Your task to perform on an android device: add a contact in the contacts app Image 0: 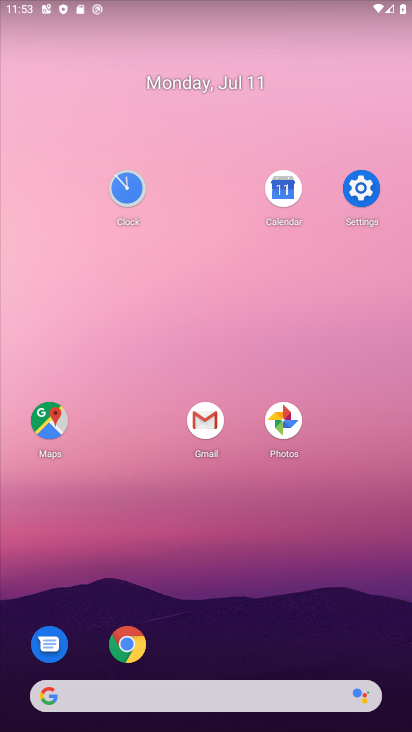
Step 0: drag from (311, 590) to (234, 185)
Your task to perform on an android device: add a contact in the contacts app Image 1: 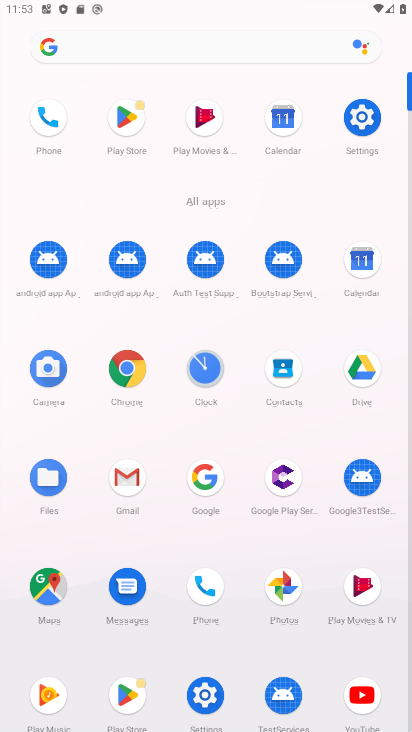
Step 1: click (282, 377)
Your task to perform on an android device: add a contact in the contacts app Image 2: 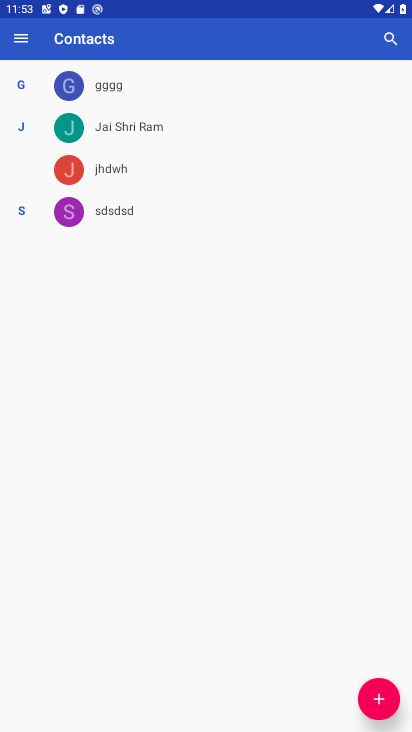
Step 2: click (375, 711)
Your task to perform on an android device: add a contact in the contacts app Image 3: 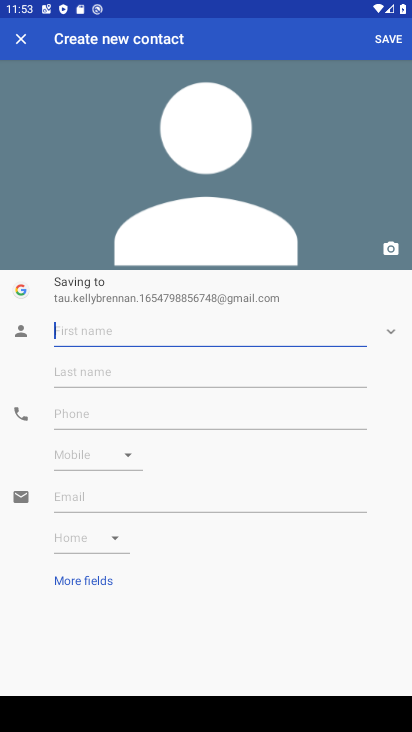
Step 3: type "llio"
Your task to perform on an android device: add a contact in the contacts app Image 4: 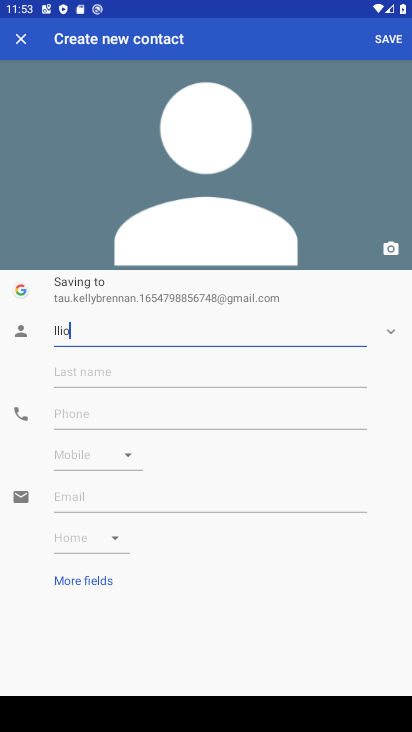
Step 4: click (205, 414)
Your task to perform on an android device: add a contact in the contacts app Image 5: 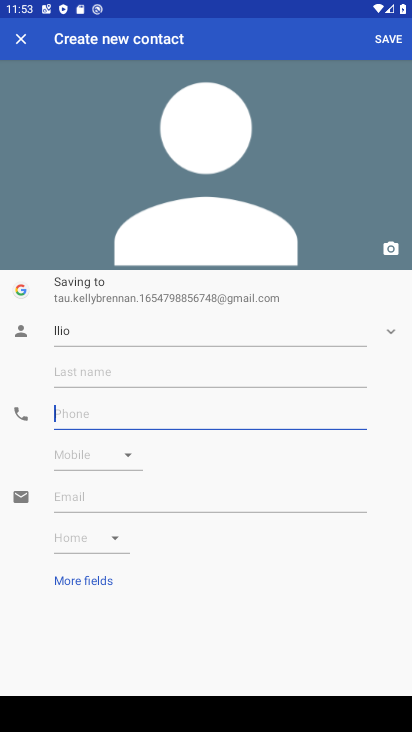
Step 5: type "8878990890"
Your task to perform on an android device: add a contact in the contacts app Image 6: 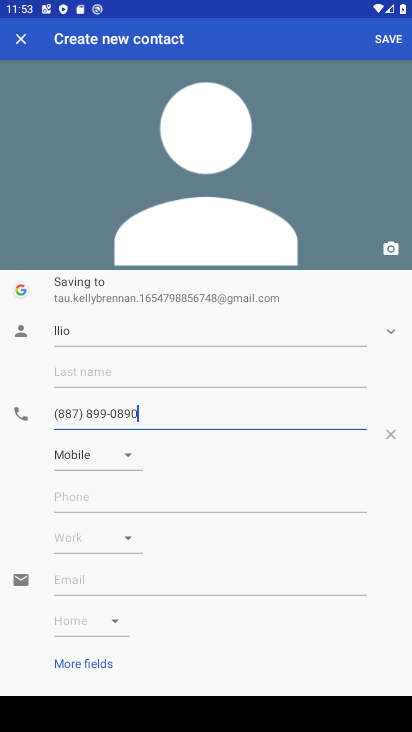
Step 6: click (389, 46)
Your task to perform on an android device: add a contact in the contacts app Image 7: 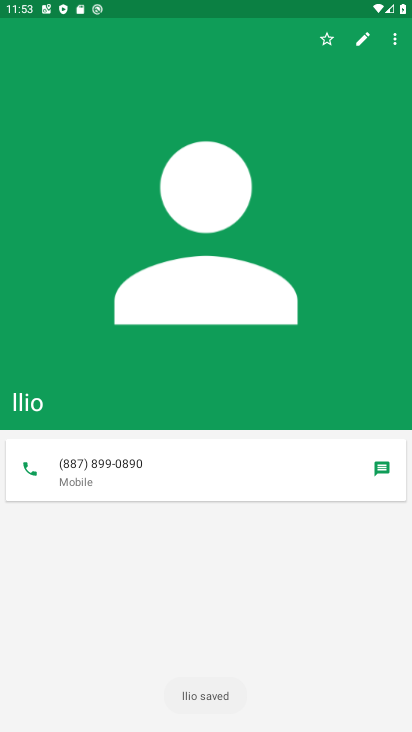
Step 7: task complete